Your task to perform on an android device: Go to sound settings Image 0: 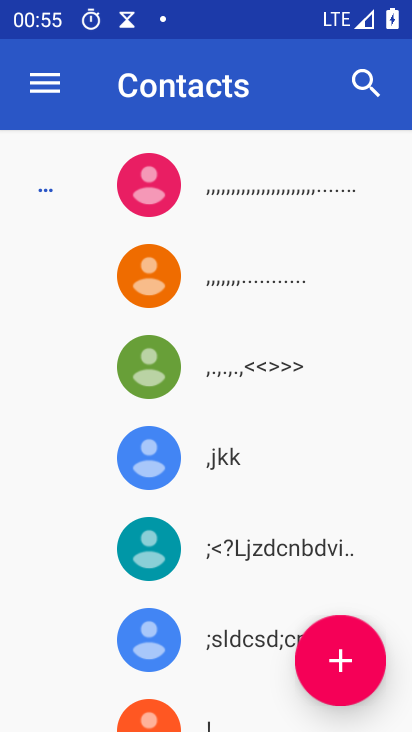
Step 0: press home button
Your task to perform on an android device: Go to sound settings Image 1: 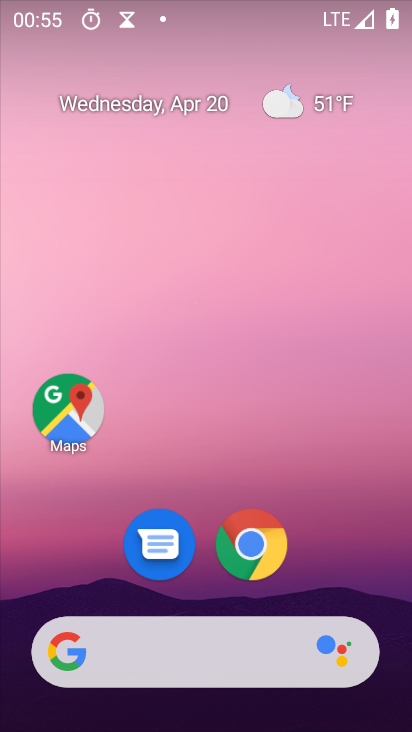
Step 1: drag from (337, 577) to (346, 77)
Your task to perform on an android device: Go to sound settings Image 2: 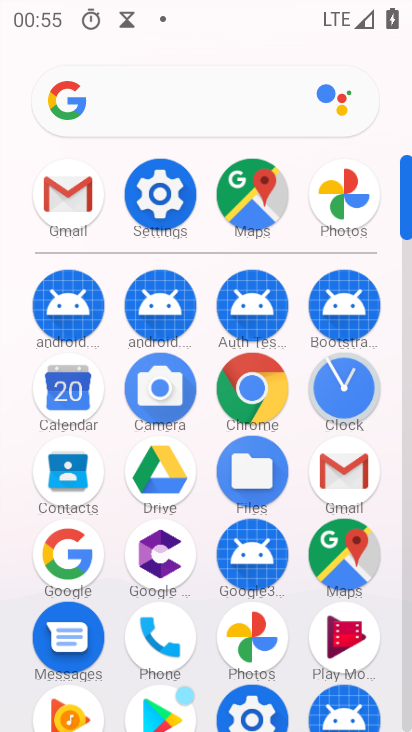
Step 2: click (146, 196)
Your task to perform on an android device: Go to sound settings Image 3: 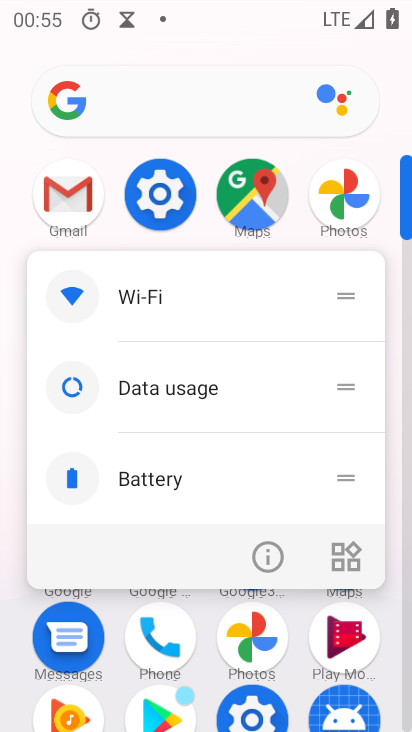
Step 3: click (143, 187)
Your task to perform on an android device: Go to sound settings Image 4: 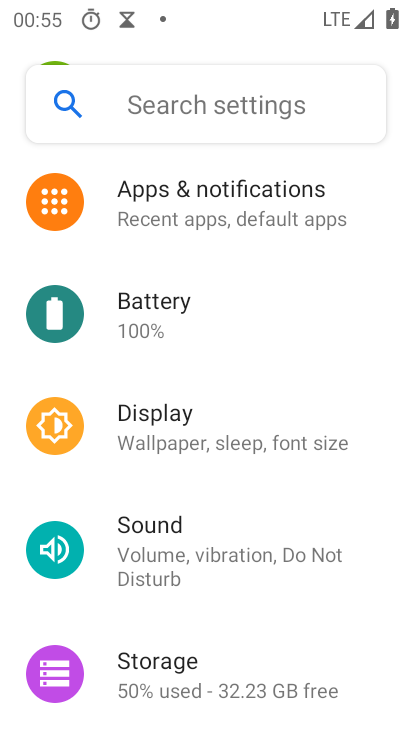
Step 4: click (147, 532)
Your task to perform on an android device: Go to sound settings Image 5: 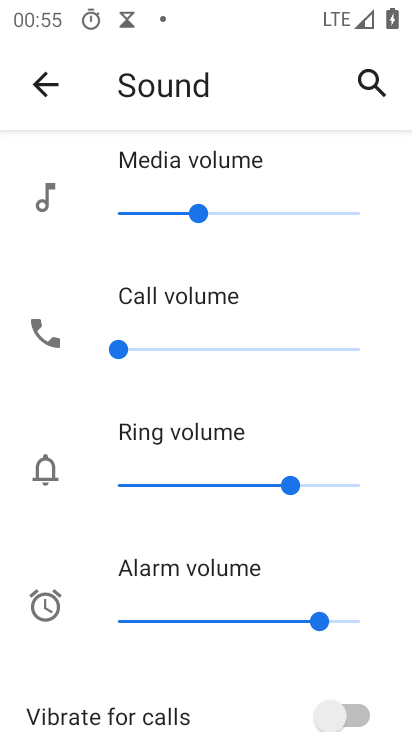
Step 5: task complete